Your task to perform on an android device: What is the capital of Norway? Image 0: 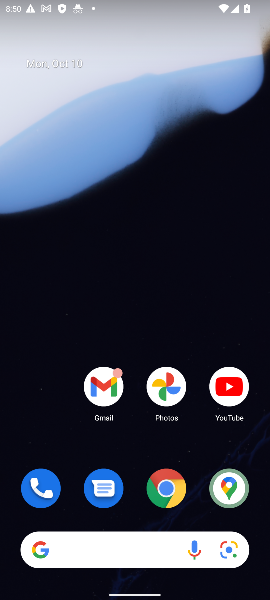
Step 0: drag from (142, 450) to (195, 0)
Your task to perform on an android device: What is the capital of Norway? Image 1: 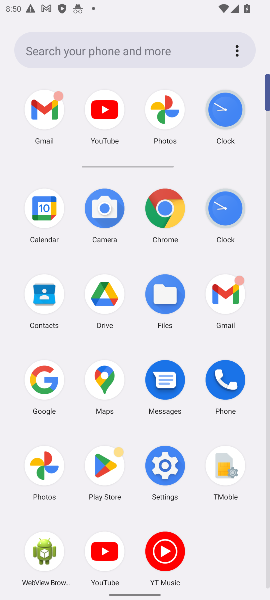
Step 1: click (163, 212)
Your task to perform on an android device: What is the capital of Norway? Image 2: 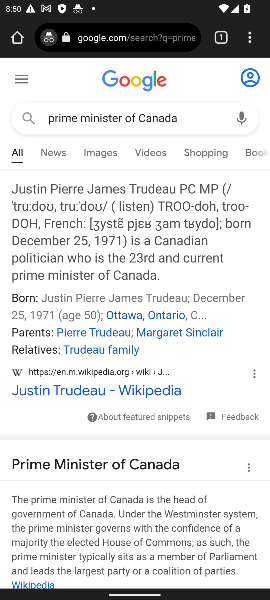
Step 2: drag from (132, 84) to (128, 116)
Your task to perform on an android device: What is the capital of Norway? Image 3: 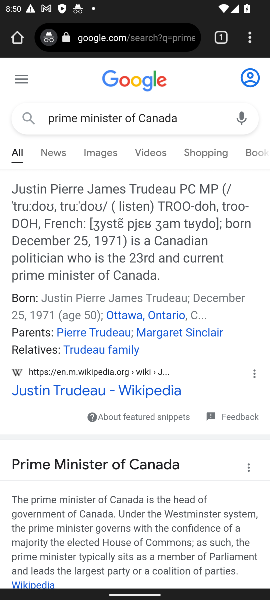
Step 3: click (151, 51)
Your task to perform on an android device: What is the capital of Norway? Image 4: 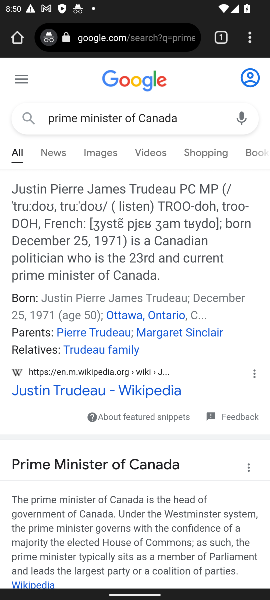
Step 4: click (153, 41)
Your task to perform on an android device: What is the capital of Norway? Image 5: 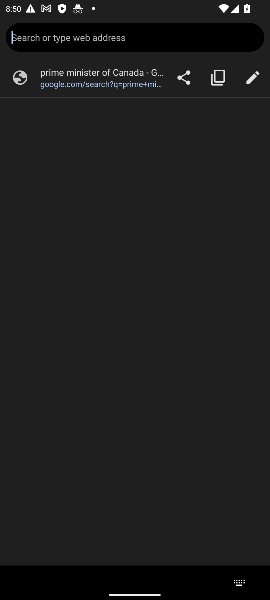
Step 5: type "capital of Norway"
Your task to perform on an android device: What is the capital of Norway? Image 6: 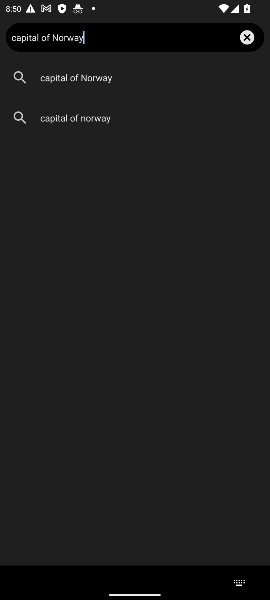
Step 6: press enter
Your task to perform on an android device: What is the capital of Norway? Image 7: 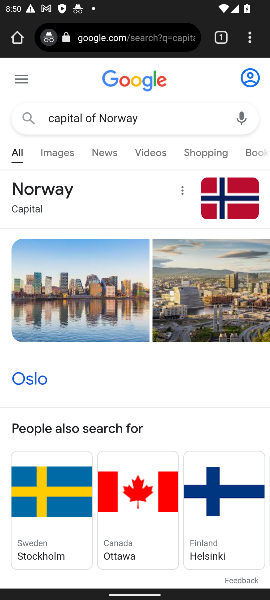
Step 7: task complete